Your task to perform on an android device: turn off smart reply in the gmail app Image 0: 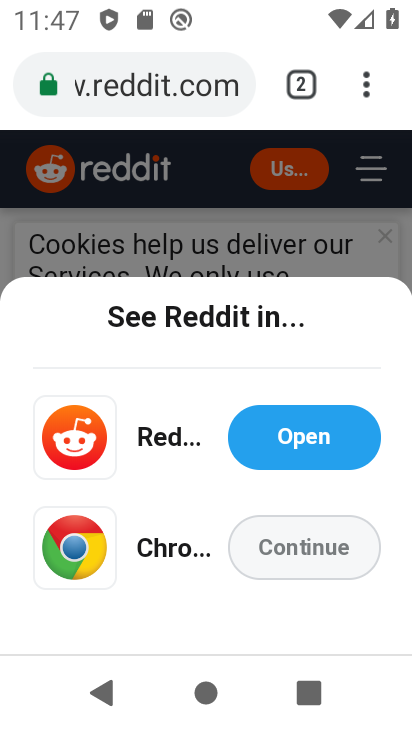
Step 0: press home button
Your task to perform on an android device: turn off smart reply in the gmail app Image 1: 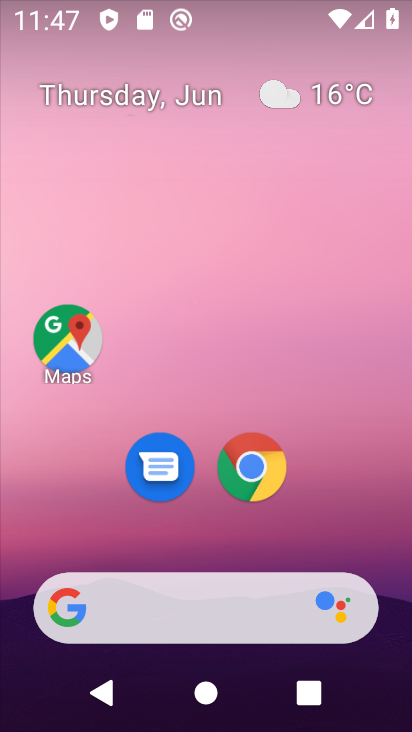
Step 1: drag from (400, 615) to (314, 70)
Your task to perform on an android device: turn off smart reply in the gmail app Image 2: 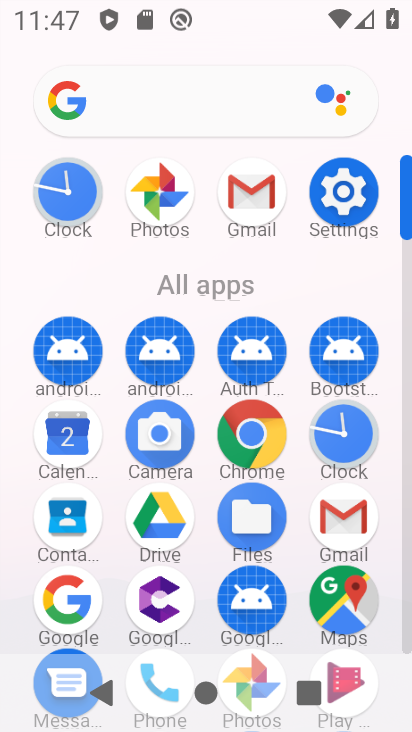
Step 2: click (407, 634)
Your task to perform on an android device: turn off smart reply in the gmail app Image 3: 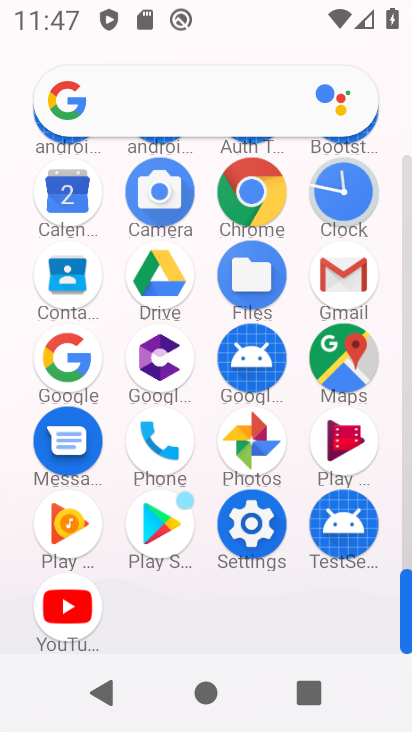
Step 3: click (340, 272)
Your task to perform on an android device: turn off smart reply in the gmail app Image 4: 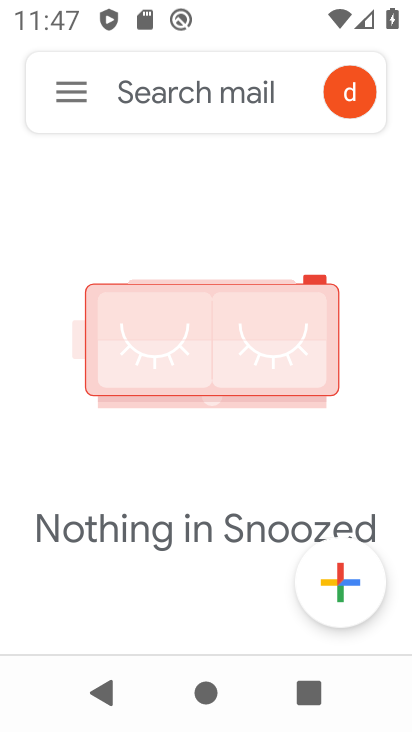
Step 4: click (73, 94)
Your task to perform on an android device: turn off smart reply in the gmail app Image 5: 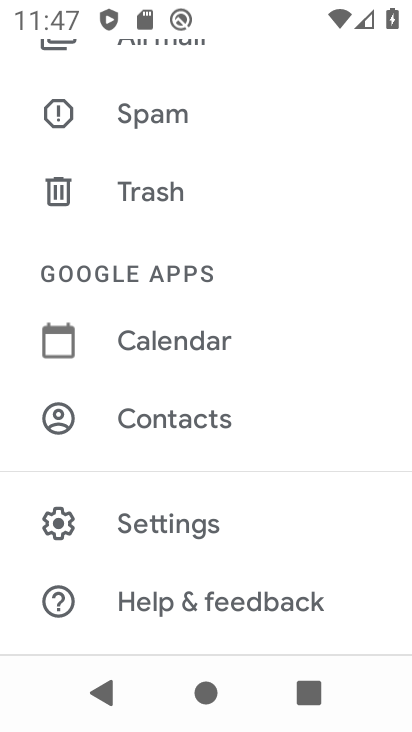
Step 5: drag from (270, 159) to (261, 222)
Your task to perform on an android device: turn off smart reply in the gmail app Image 6: 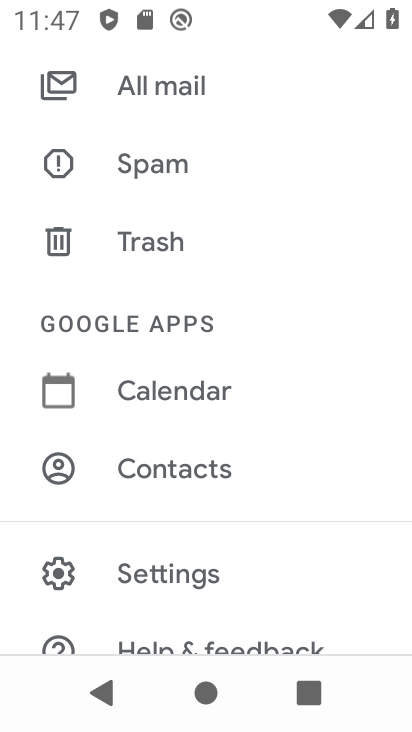
Step 6: click (161, 575)
Your task to perform on an android device: turn off smart reply in the gmail app Image 7: 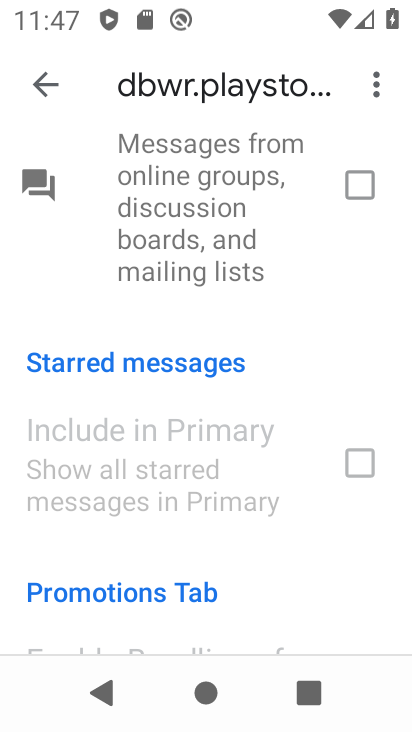
Step 7: drag from (285, 290) to (292, 575)
Your task to perform on an android device: turn off smart reply in the gmail app Image 8: 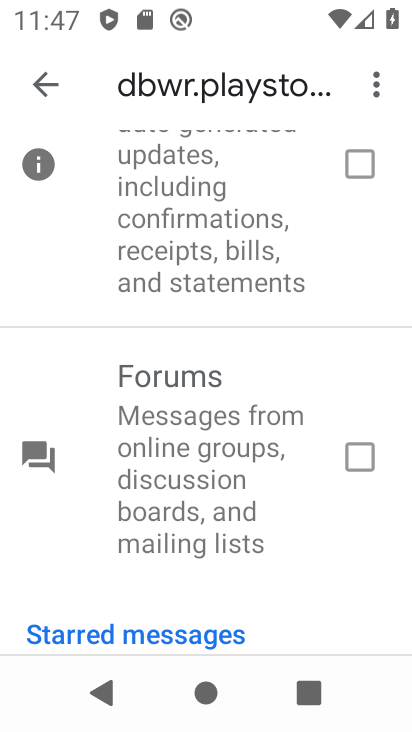
Step 8: press back button
Your task to perform on an android device: turn off smart reply in the gmail app Image 9: 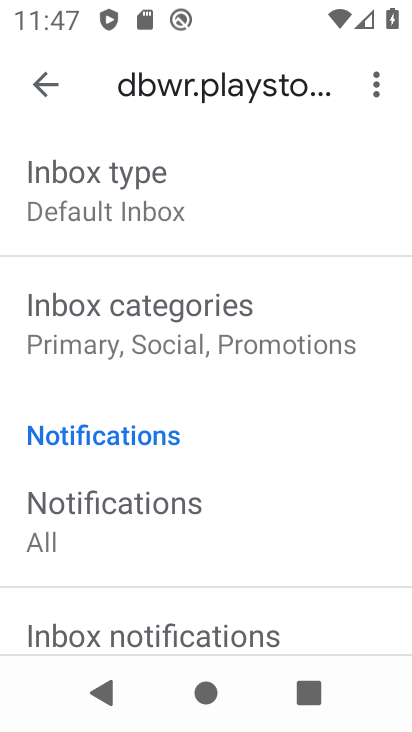
Step 9: drag from (257, 602) to (285, 165)
Your task to perform on an android device: turn off smart reply in the gmail app Image 10: 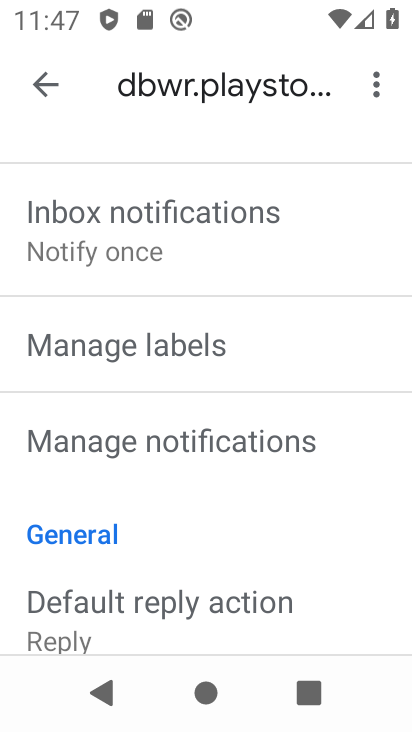
Step 10: drag from (312, 451) to (294, 74)
Your task to perform on an android device: turn off smart reply in the gmail app Image 11: 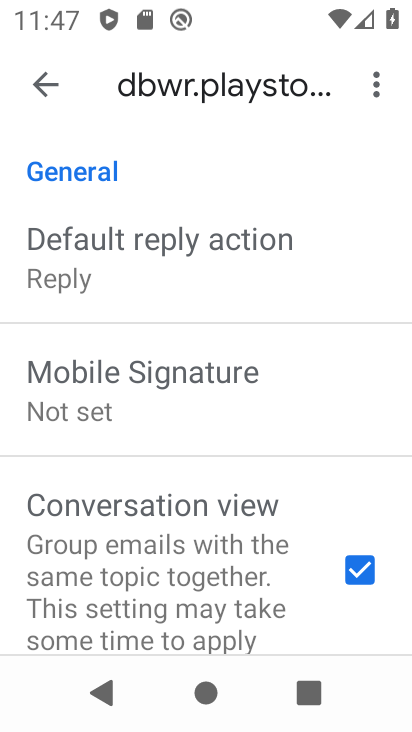
Step 11: drag from (267, 546) to (305, 101)
Your task to perform on an android device: turn off smart reply in the gmail app Image 12: 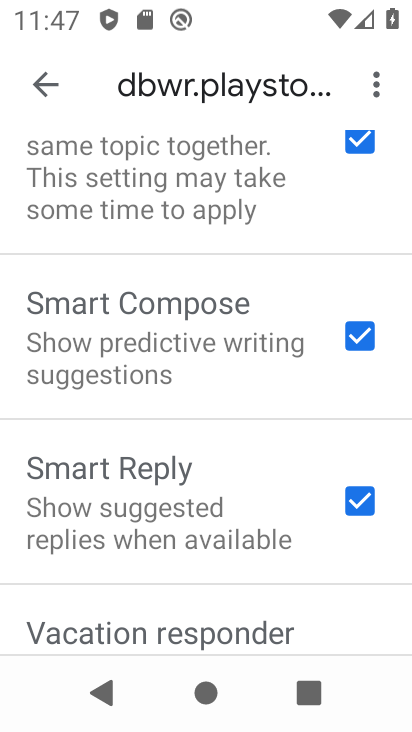
Step 12: click (358, 501)
Your task to perform on an android device: turn off smart reply in the gmail app Image 13: 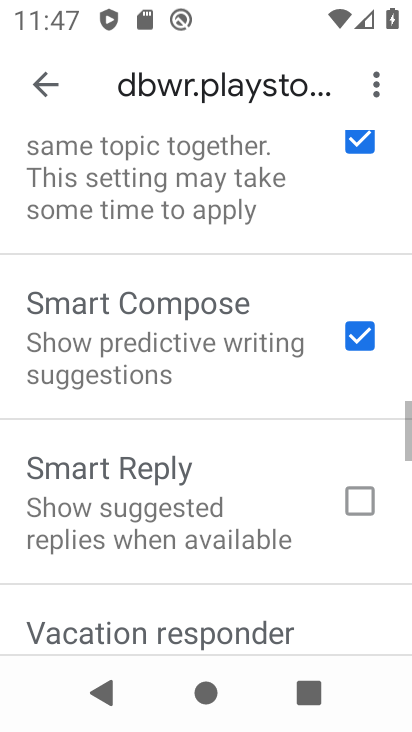
Step 13: task complete